Your task to perform on an android device: clear history in the chrome app Image 0: 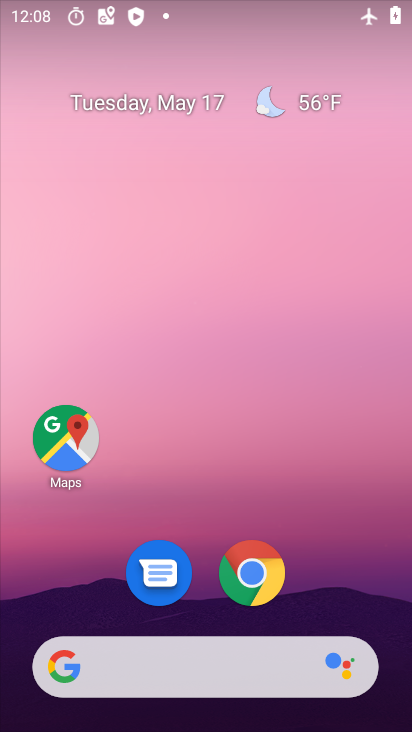
Step 0: click (281, 571)
Your task to perform on an android device: clear history in the chrome app Image 1: 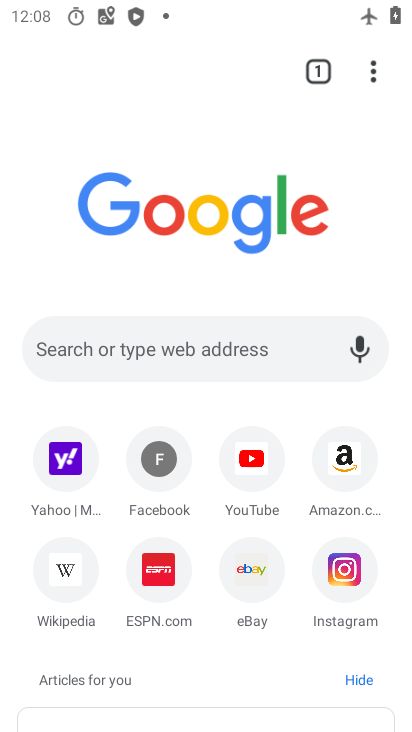
Step 1: click (369, 76)
Your task to perform on an android device: clear history in the chrome app Image 2: 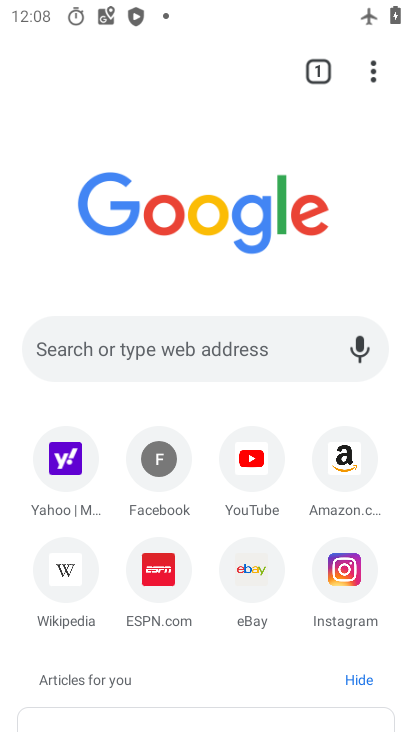
Step 2: click (377, 67)
Your task to perform on an android device: clear history in the chrome app Image 3: 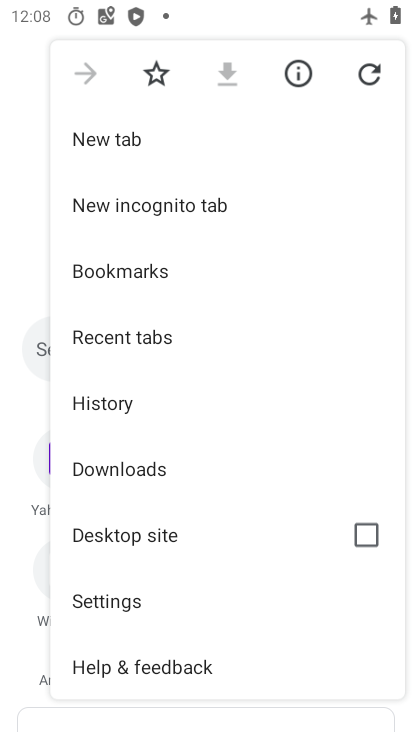
Step 3: click (123, 413)
Your task to perform on an android device: clear history in the chrome app Image 4: 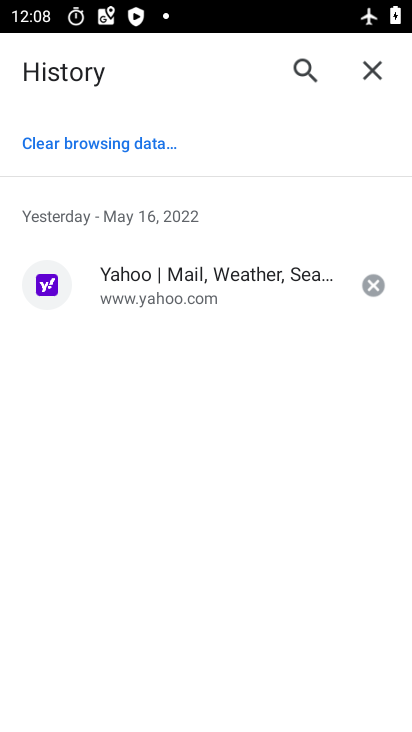
Step 4: click (109, 145)
Your task to perform on an android device: clear history in the chrome app Image 5: 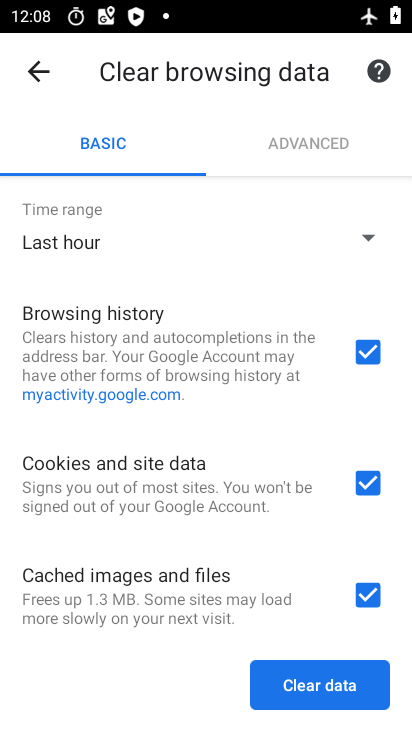
Step 5: click (331, 667)
Your task to perform on an android device: clear history in the chrome app Image 6: 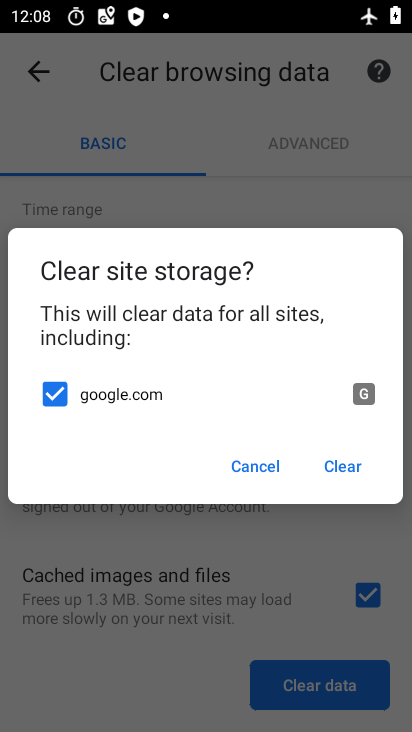
Step 6: click (357, 473)
Your task to perform on an android device: clear history in the chrome app Image 7: 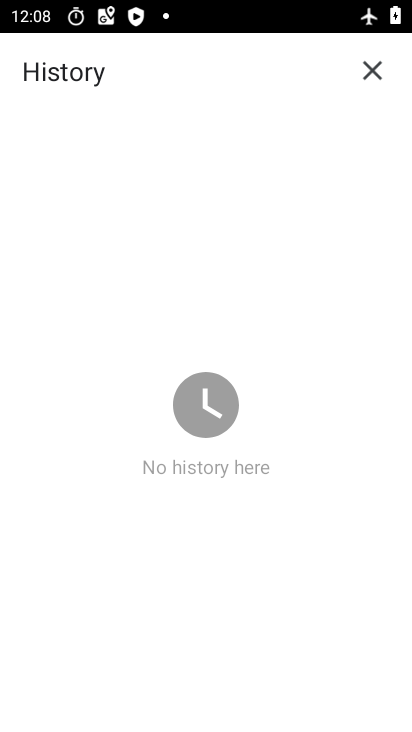
Step 7: task complete